Your task to perform on an android device: check data usage Image 0: 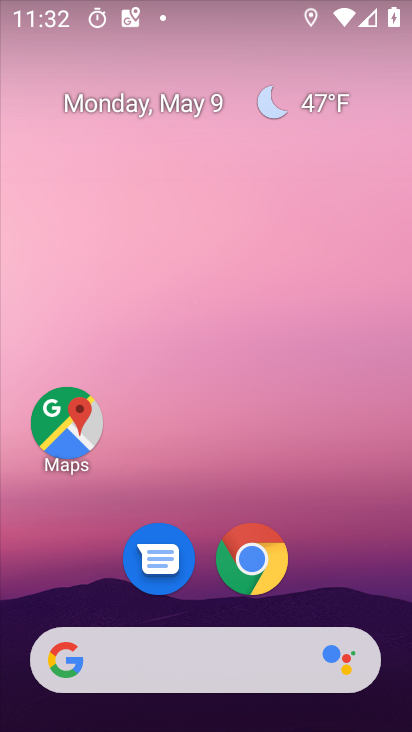
Step 0: drag from (327, 24) to (232, 506)
Your task to perform on an android device: check data usage Image 1: 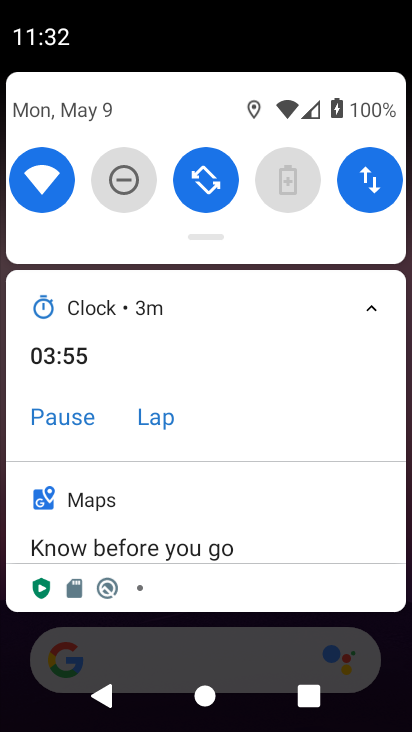
Step 1: click (360, 186)
Your task to perform on an android device: check data usage Image 2: 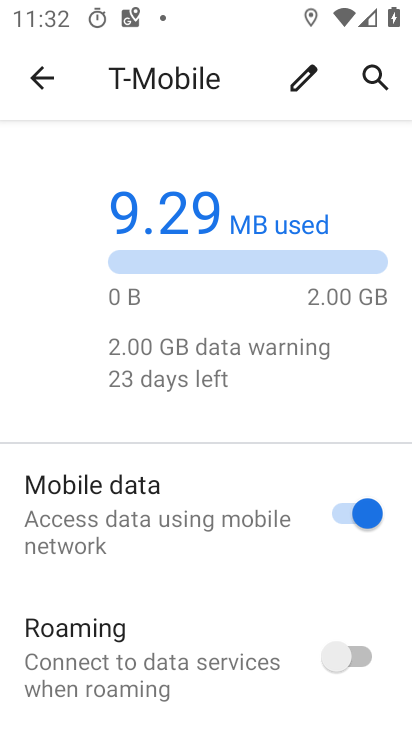
Step 2: task complete